Your task to perform on an android device: Add "usb-a" to the cart on target Image 0: 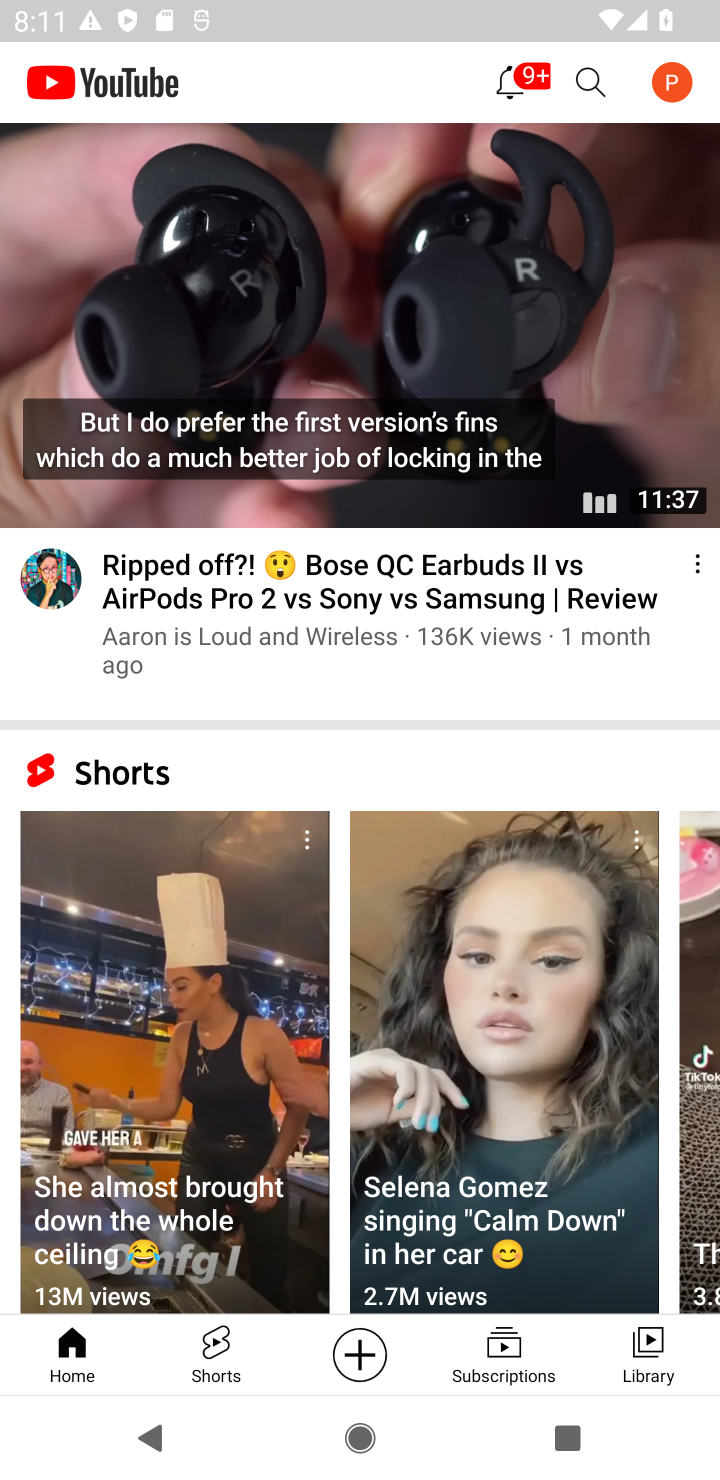
Step 0: task complete